Your task to perform on an android device: see tabs open on other devices in the chrome app Image 0: 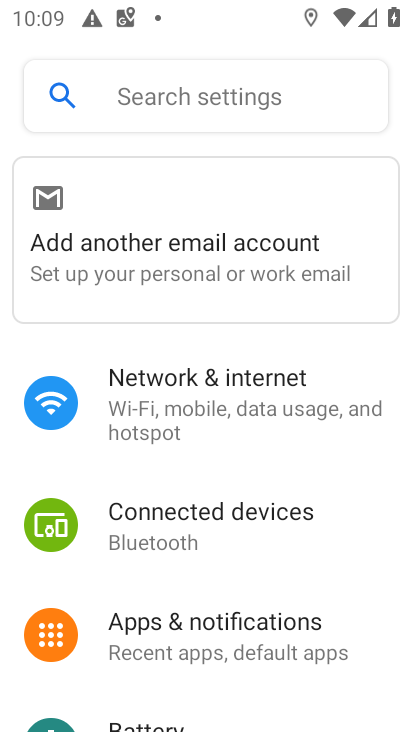
Step 0: press home button
Your task to perform on an android device: see tabs open on other devices in the chrome app Image 1: 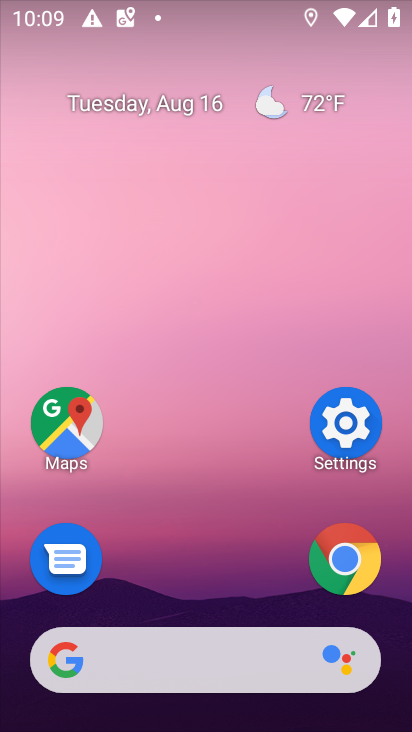
Step 1: click (345, 561)
Your task to perform on an android device: see tabs open on other devices in the chrome app Image 2: 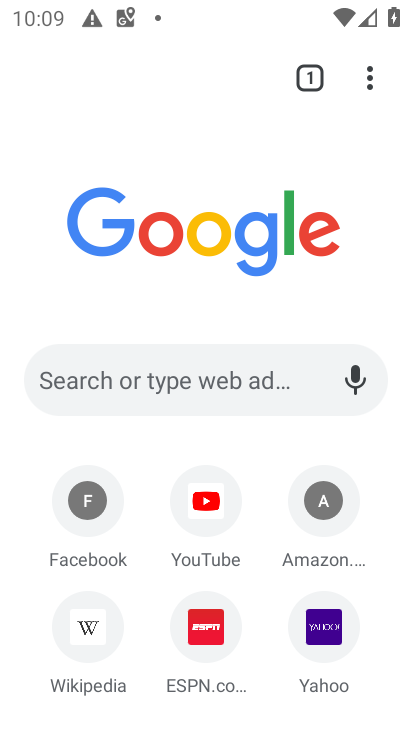
Step 2: task complete